Your task to perform on an android device: Open my contact list Image 0: 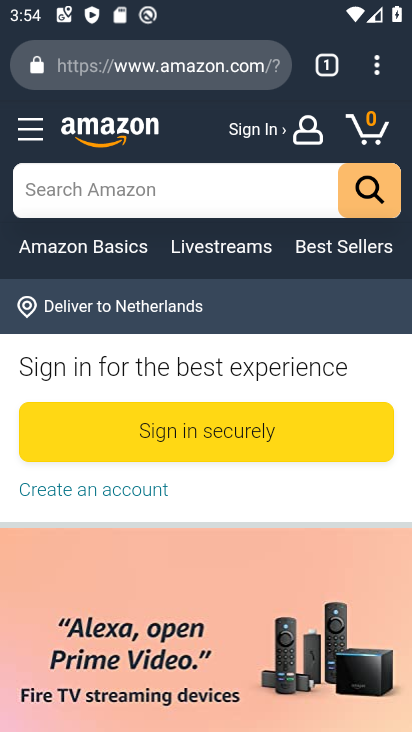
Step 0: task complete